Your task to perform on an android device: What is the price of a 12' ladder at Home Depot? Image 0: 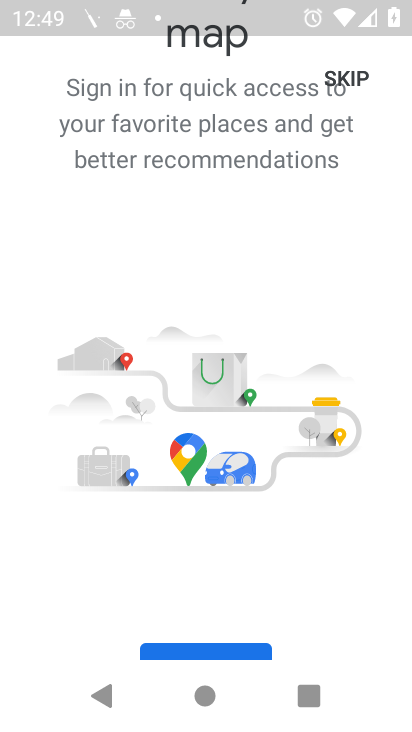
Step 0: press home button
Your task to perform on an android device: What is the price of a 12' ladder at Home Depot? Image 1: 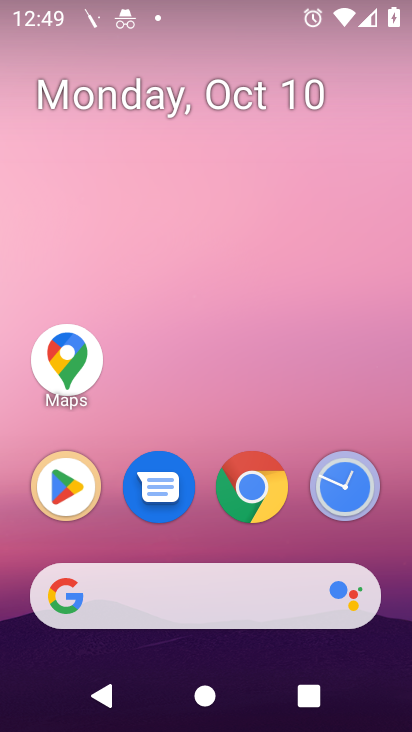
Step 1: click (255, 497)
Your task to perform on an android device: What is the price of a 12' ladder at Home Depot? Image 2: 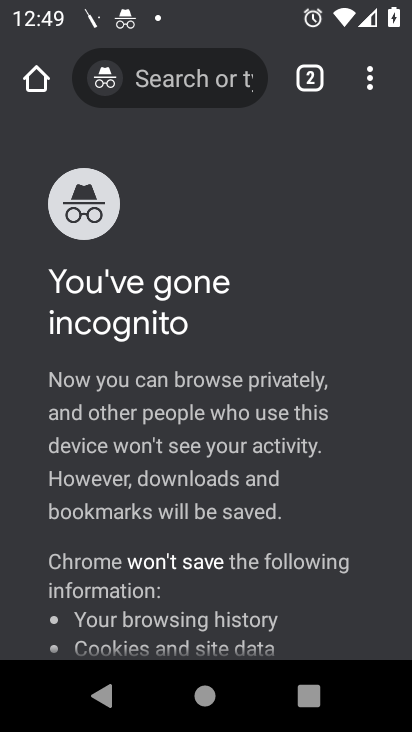
Step 2: click (318, 80)
Your task to perform on an android device: What is the price of a 12' ladder at Home Depot? Image 3: 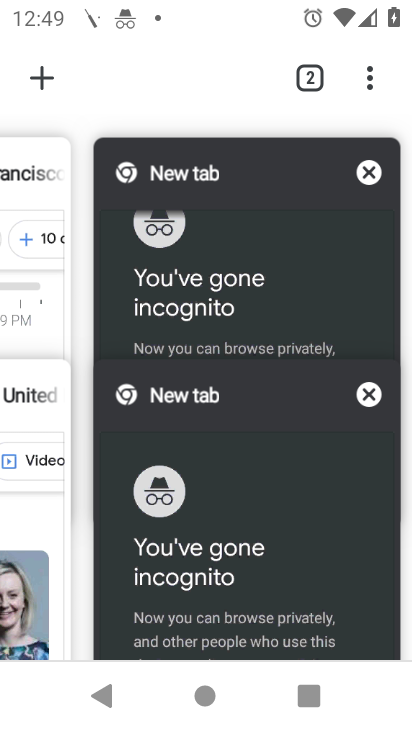
Step 3: click (370, 404)
Your task to perform on an android device: What is the price of a 12' ladder at Home Depot? Image 4: 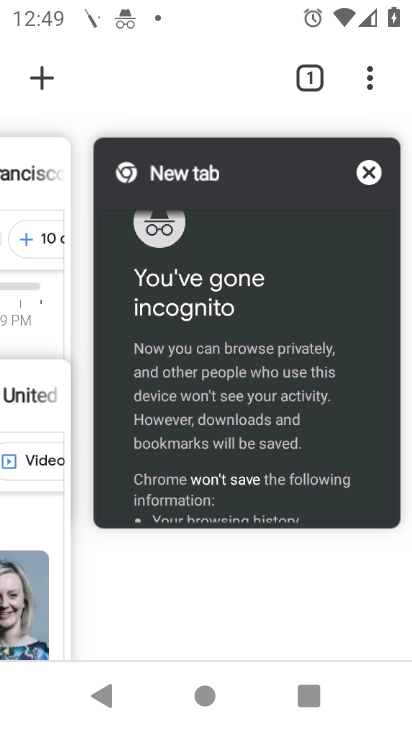
Step 4: click (372, 178)
Your task to perform on an android device: What is the price of a 12' ladder at Home Depot? Image 5: 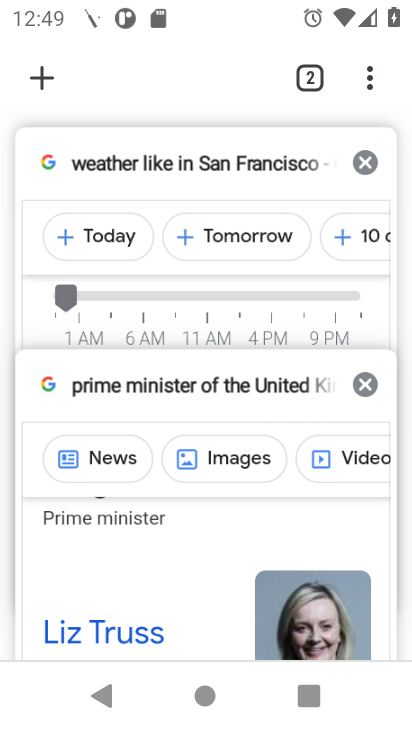
Step 5: click (356, 376)
Your task to perform on an android device: What is the price of a 12' ladder at Home Depot? Image 6: 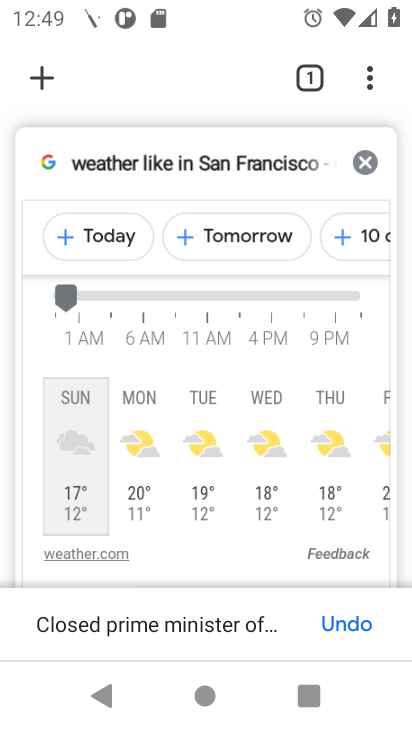
Step 6: click (358, 164)
Your task to perform on an android device: What is the price of a 12' ladder at Home Depot? Image 7: 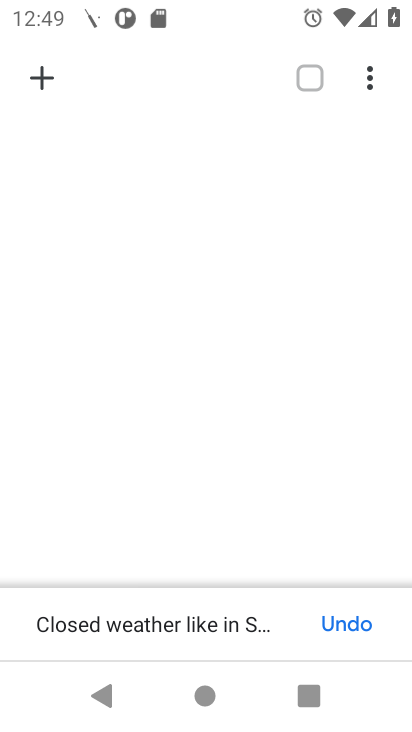
Step 7: click (41, 69)
Your task to perform on an android device: What is the price of a 12' ladder at Home Depot? Image 8: 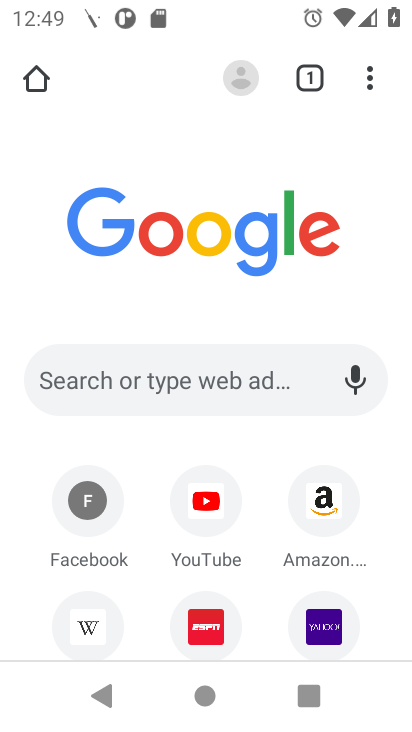
Step 8: click (222, 383)
Your task to perform on an android device: What is the price of a 12' ladder at Home Depot? Image 9: 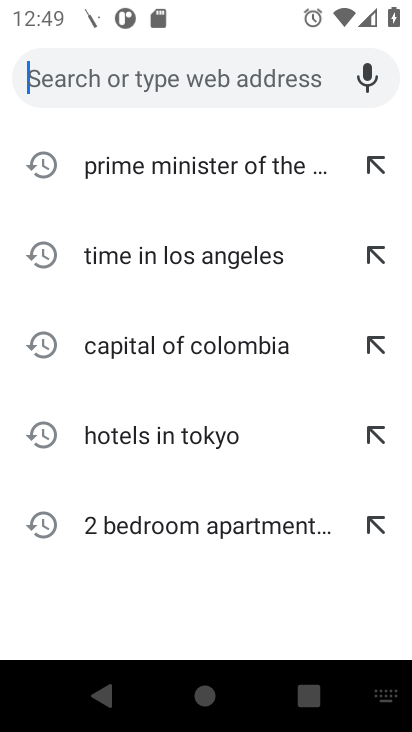
Step 9: type "home depot"
Your task to perform on an android device: What is the price of a 12' ladder at Home Depot? Image 10: 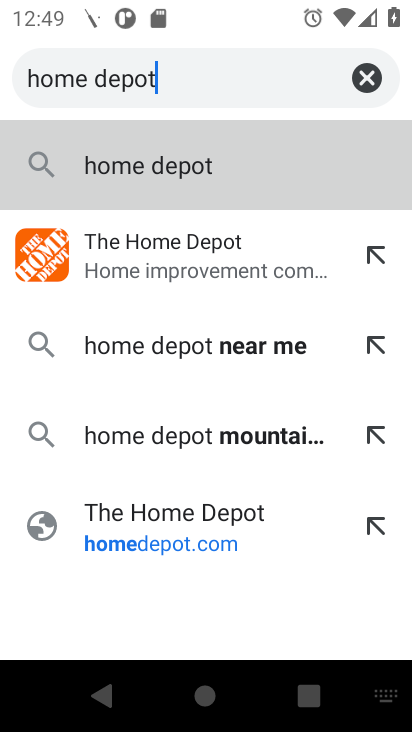
Step 10: press enter
Your task to perform on an android device: What is the price of a 12' ladder at Home Depot? Image 11: 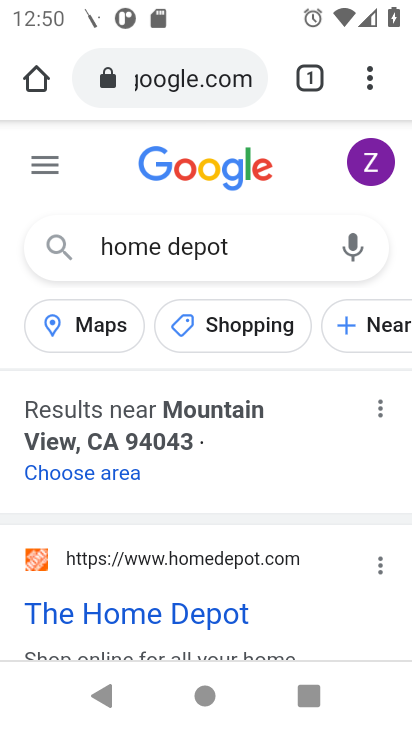
Step 11: drag from (320, 453) to (304, 183)
Your task to perform on an android device: What is the price of a 12' ladder at Home Depot? Image 12: 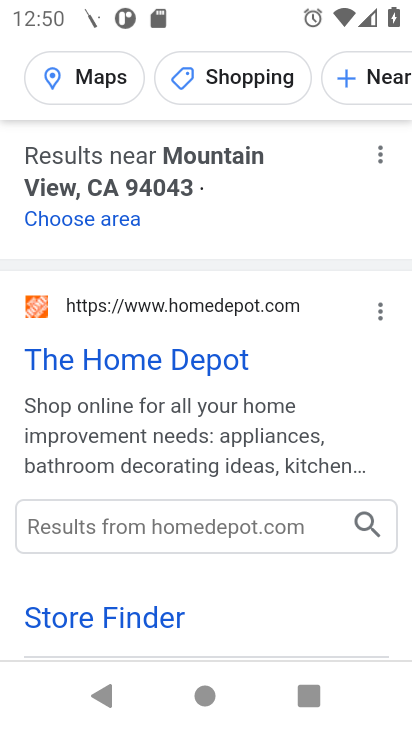
Step 12: click (187, 358)
Your task to perform on an android device: What is the price of a 12' ladder at Home Depot? Image 13: 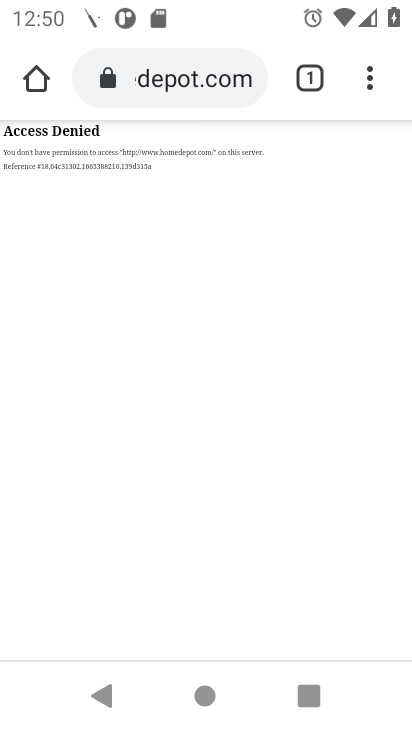
Step 13: press back button
Your task to perform on an android device: What is the price of a 12' ladder at Home Depot? Image 14: 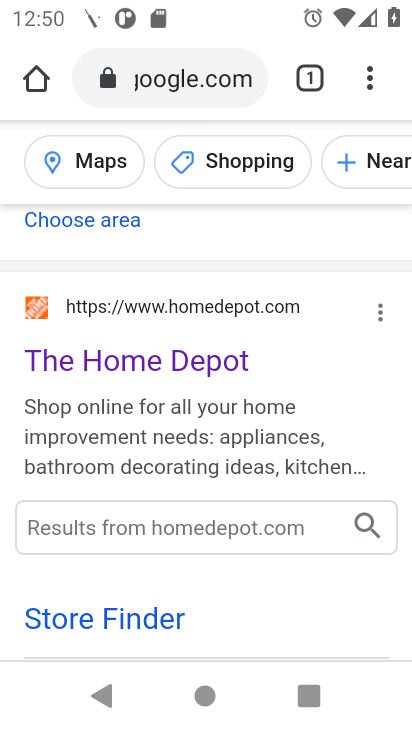
Step 14: drag from (209, 568) to (176, 233)
Your task to perform on an android device: What is the price of a 12' ladder at Home Depot? Image 15: 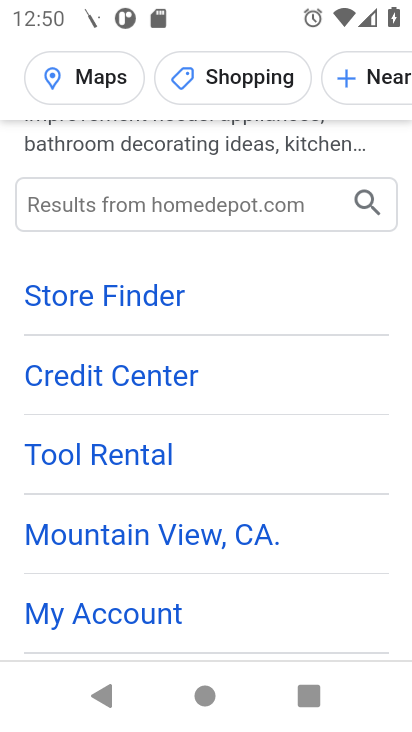
Step 15: drag from (292, 587) to (270, 200)
Your task to perform on an android device: What is the price of a 12' ladder at Home Depot? Image 16: 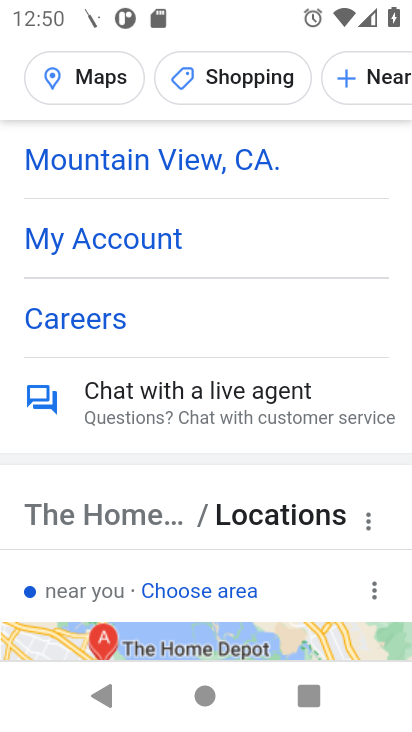
Step 16: drag from (231, 609) to (232, 248)
Your task to perform on an android device: What is the price of a 12' ladder at Home Depot? Image 17: 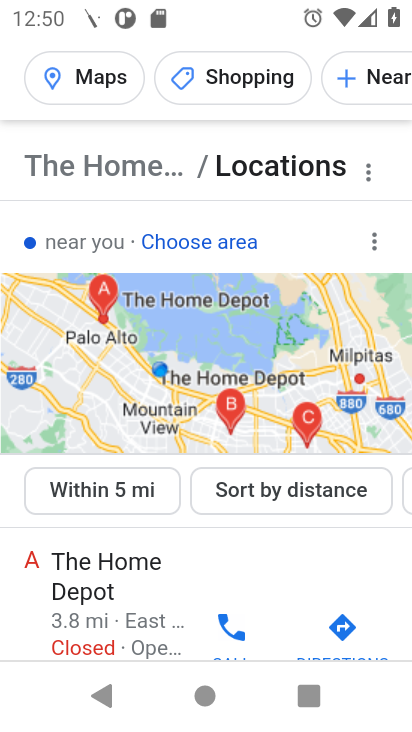
Step 17: drag from (237, 611) to (234, 237)
Your task to perform on an android device: What is the price of a 12' ladder at Home Depot? Image 18: 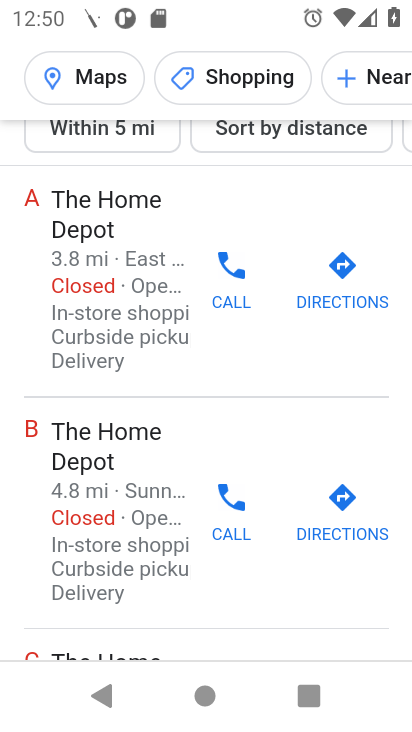
Step 18: drag from (206, 607) to (204, 220)
Your task to perform on an android device: What is the price of a 12' ladder at Home Depot? Image 19: 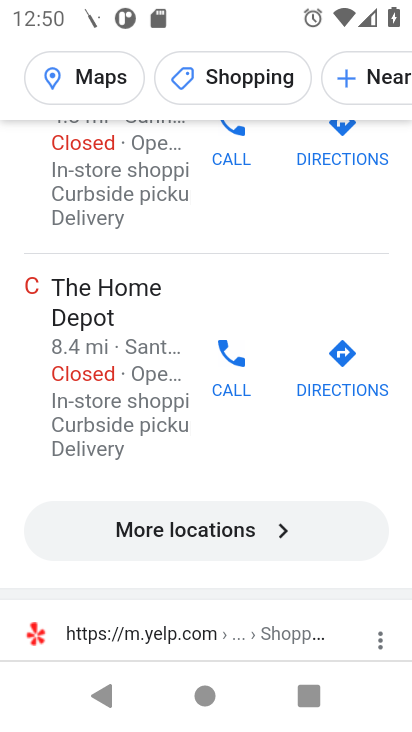
Step 19: drag from (198, 607) to (207, 239)
Your task to perform on an android device: What is the price of a 12' ladder at Home Depot? Image 20: 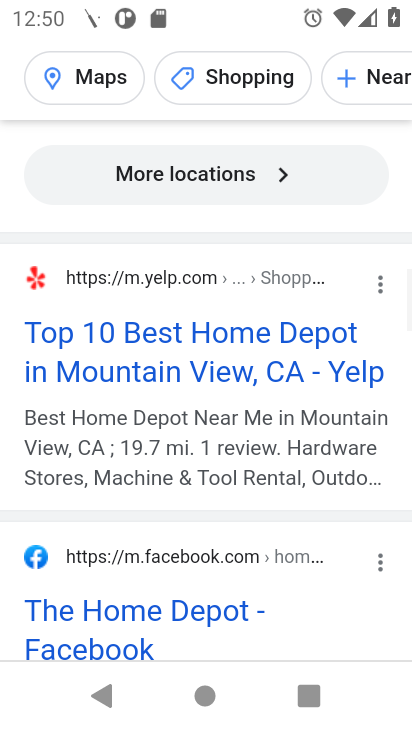
Step 20: drag from (198, 577) to (217, 217)
Your task to perform on an android device: What is the price of a 12' ladder at Home Depot? Image 21: 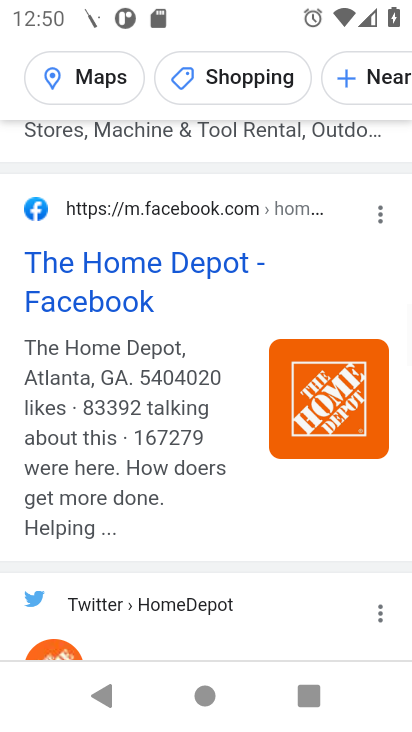
Step 21: drag from (188, 558) to (185, 96)
Your task to perform on an android device: What is the price of a 12' ladder at Home Depot? Image 22: 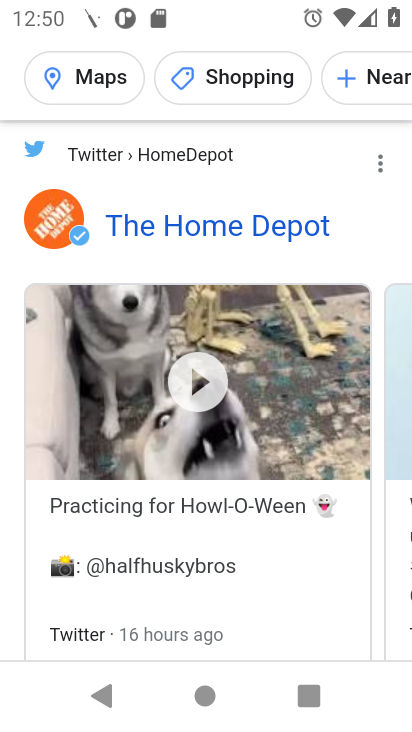
Step 22: drag from (233, 581) to (204, 133)
Your task to perform on an android device: What is the price of a 12' ladder at Home Depot? Image 23: 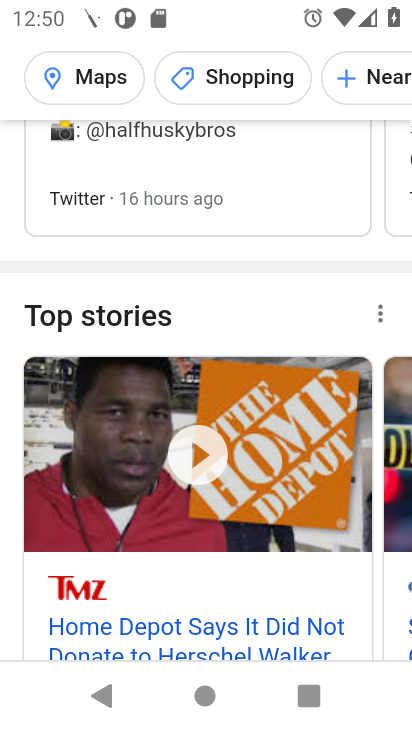
Step 23: drag from (208, 593) to (200, 129)
Your task to perform on an android device: What is the price of a 12' ladder at Home Depot? Image 24: 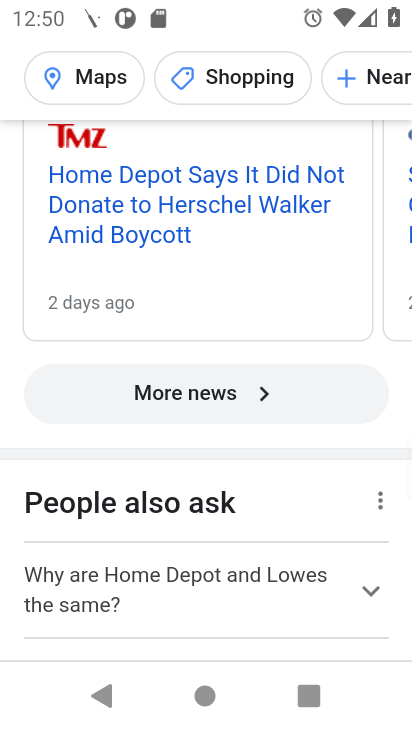
Step 24: drag from (253, 627) to (241, 270)
Your task to perform on an android device: What is the price of a 12' ladder at Home Depot? Image 25: 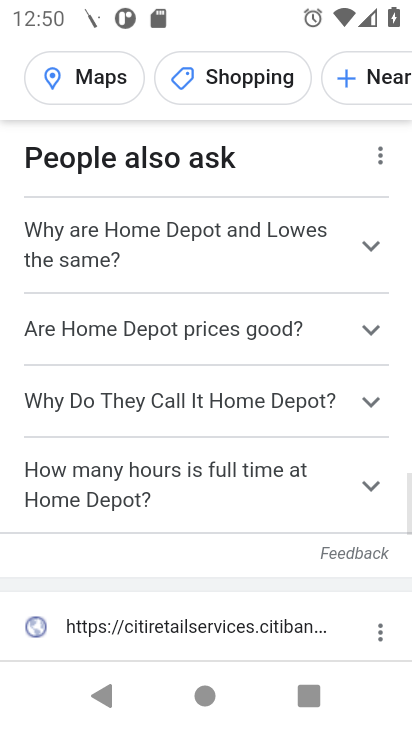
Step 25: drag from (217, 591) to (209, 719)
Your task to perform on an android device: What is the price of a 12' ladder at Home Depot? Image 26: 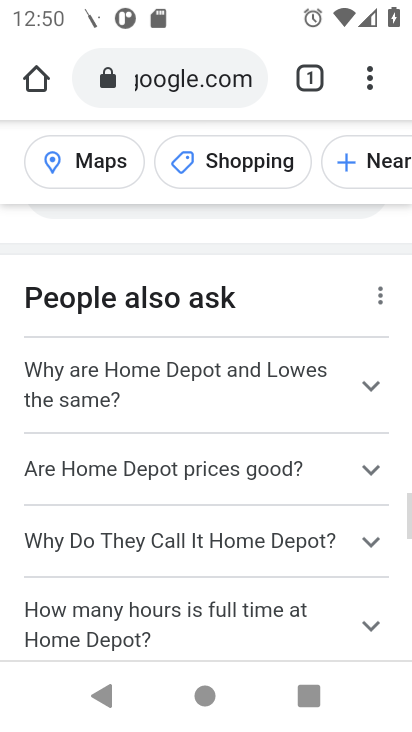
Step 26: drag from (200, 296) to (200, 646)
Your task to perform on an android device: What is the price of a 12' ladder at Home Depot? Image 27: 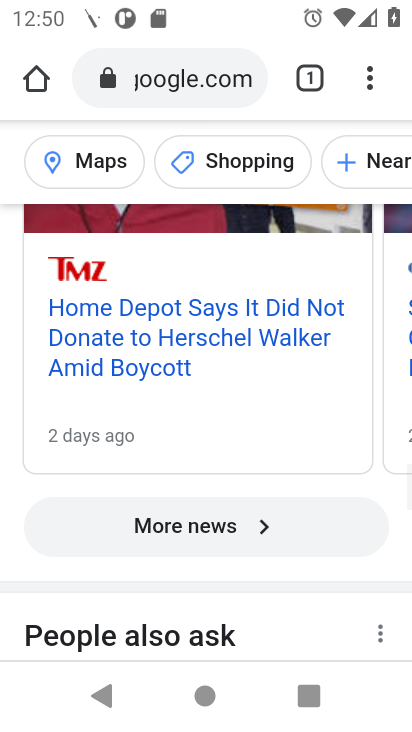
Step 27: drag from (199, 323) to (218, 641)
Your task to perform on an android device: What is the price of a 12' ladder at Home Depot? Image 28: 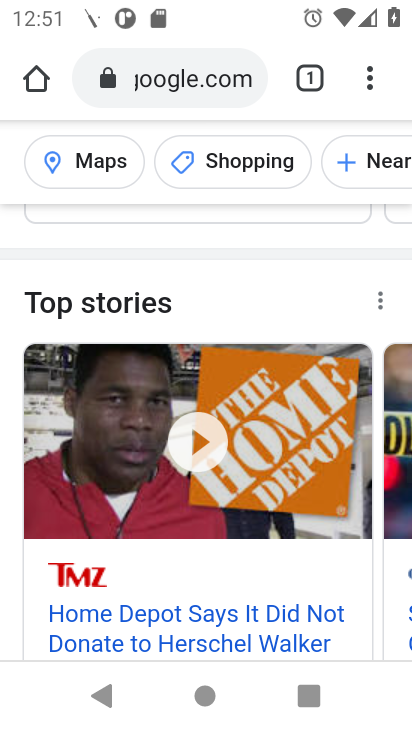
Step 28: drag from (218, 310) to (233, 641)
Your task to perform on an android device: What is the price of a 12' ladder at Home Depot? Image 29: 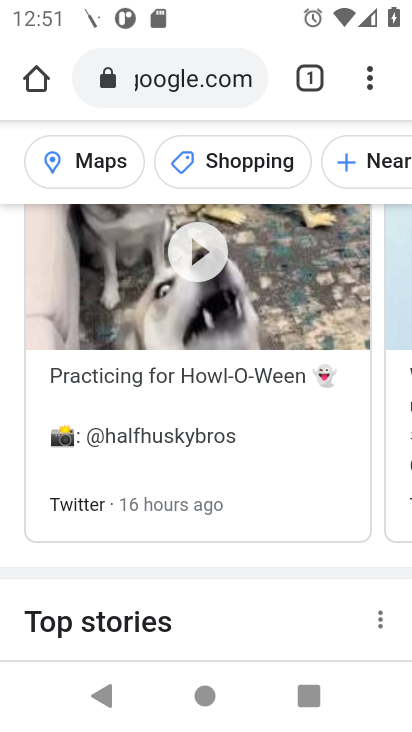
Step 29: drag from (240, 317) to (248, 630)
Your task to perform on an android device: What is the price of a 12' ladder at Home Depot? Image 30: 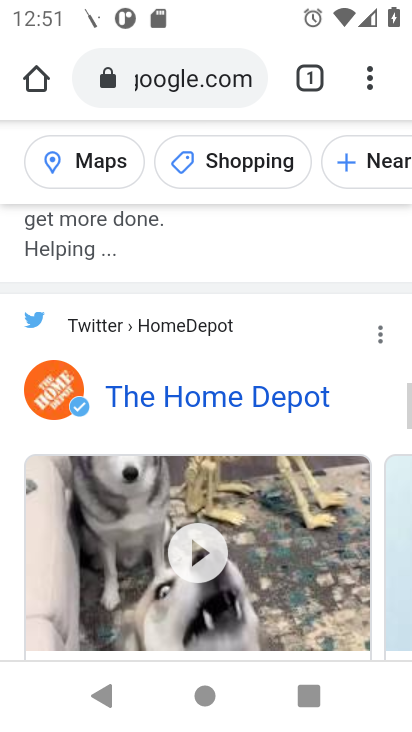
Step 30: drag from (229, 272) to (244, 612)
Your task to perform on an android device: What is the price of a 12' ladder at Home Depot? Image 31: 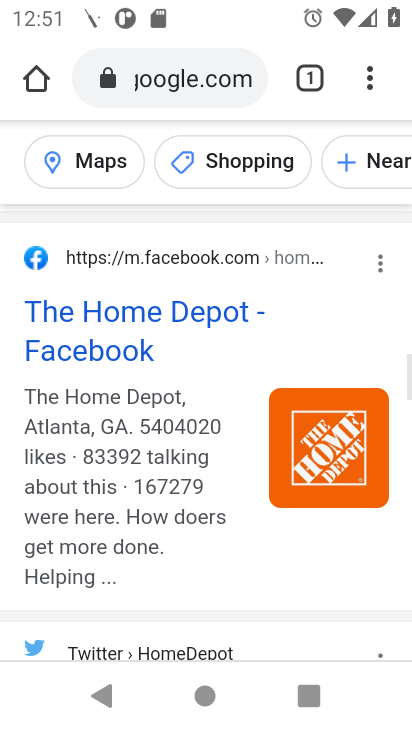
Step 31: drag from (247, 316) to (232, 550)
Your task to perform on an android device: What is the price of a 12' ladder at Home Depot? Image 32: 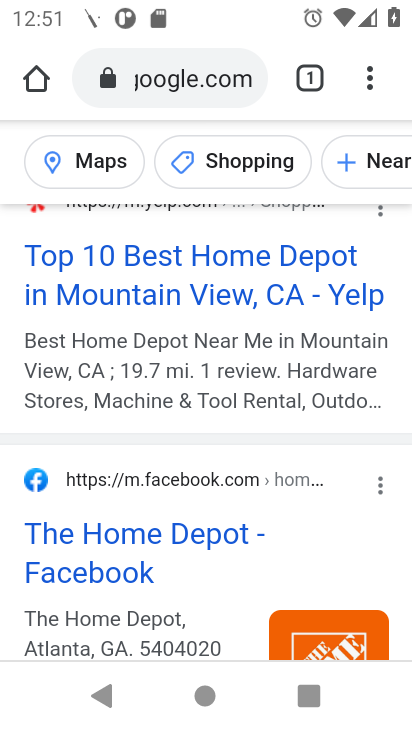
Step 32: drag from (231, 299) to (225, 569)
Your task to perform on an android device: What is the price of a 12' ladder at Home Depot? Image 33: 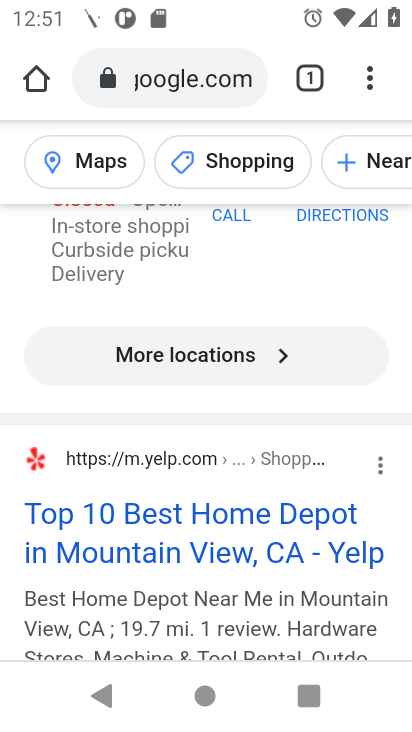
Step 33: drag from (228, 339) to (229, 626)
Your task to perform on an android device: What is the price of a 12' ladder at Home Depot? Image 34: 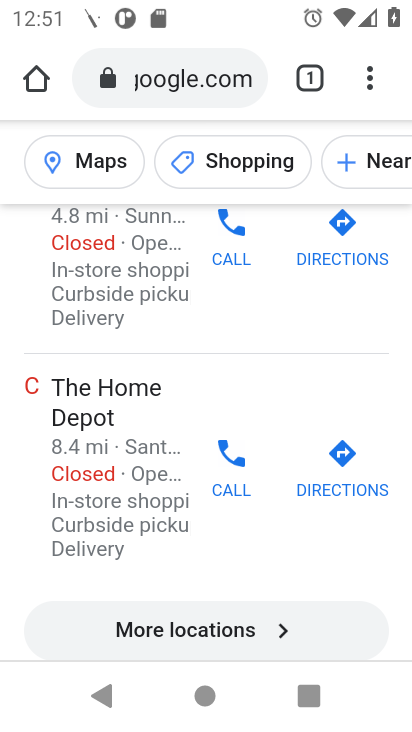
Step 34: drag from (236, 318) to (237, 617)
Your task to perform on an android device: What is the price of a 12' ladder at Home Depot? Image 35: 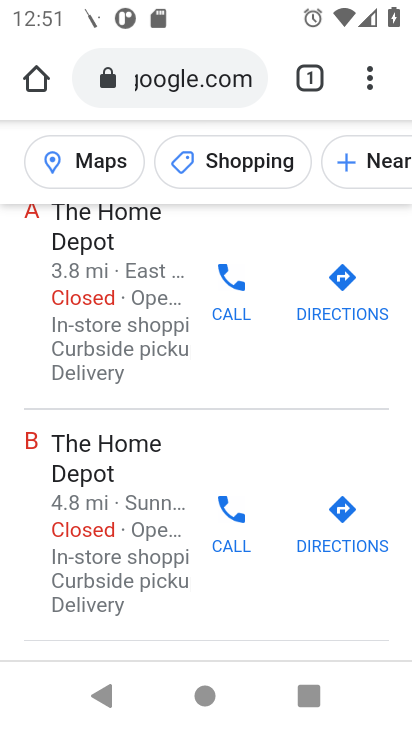
Step 35: drag from (232, 259) to (229, 669)
Your task to perform on an android device: What is the price of a 12' ladder at Home Depot? Image 36: 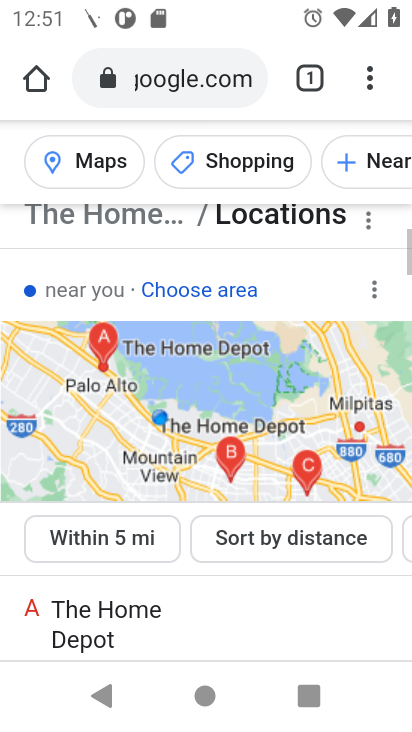
Step 36: drag from (236, 298) to (239, 567)
Your task to perform on an android device: What is the price of a 12' ladder at Home Depot? Image 37: 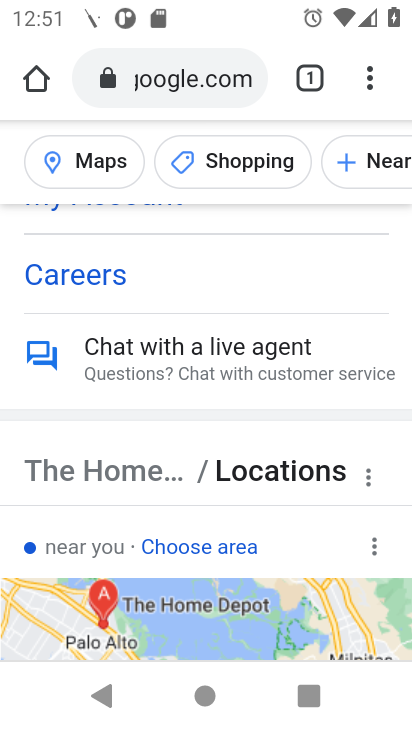
Step 37: drag from (249, 298) to (217, 626)
Your task to perform on an android device: What is the price of a 12' ladder at Home Depot? Image 38: 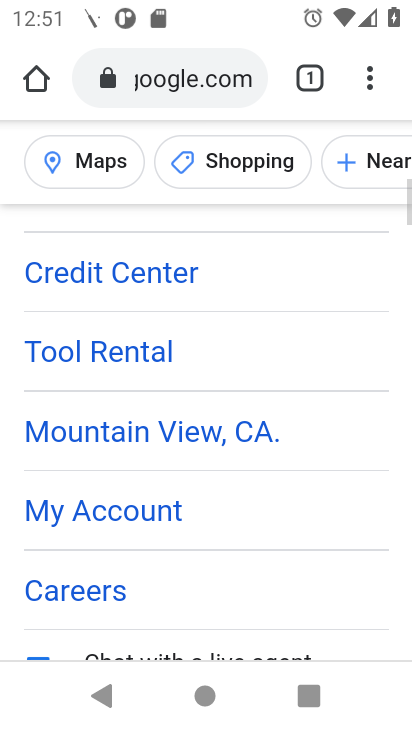
Step 38: drag from (235, 297) to (236, 588)
Your task to perform on an android device: What is the price of a 12' ladder at Home Depot? Image 39: 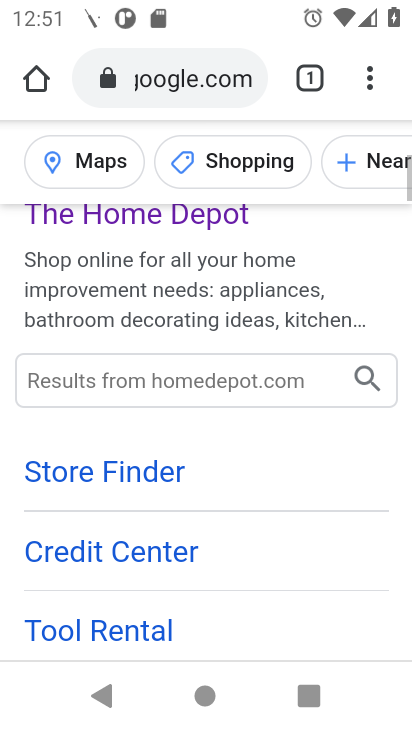
Step 39: drag from (266, 278) to (269, 532)
Your task to perform on an android device: What is the price of a 12' ladder at Home Depot? Image 40: 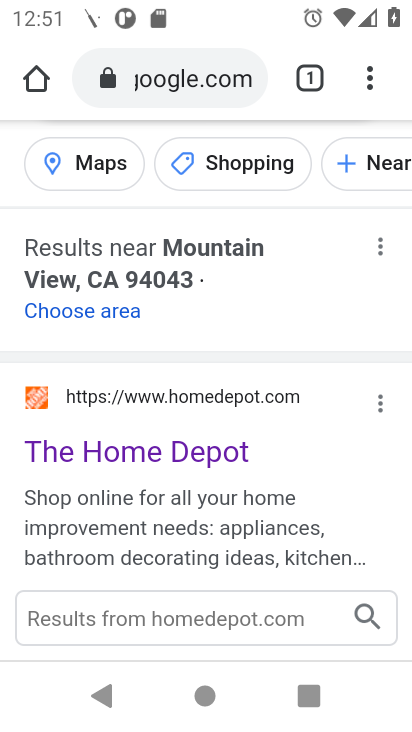
Step 40: click (169, 450)
Your task to perform on an android device: What is the price of a 12' ladder at Home Depot? Image 41: 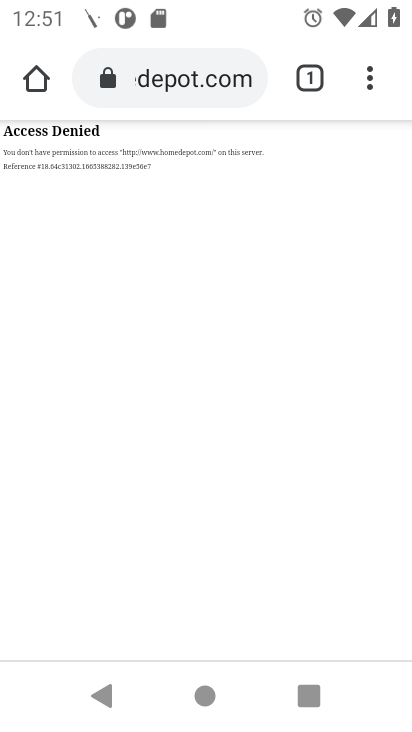
Step 41: task complete